Your task to perform on an android device: turn off location Image 0: 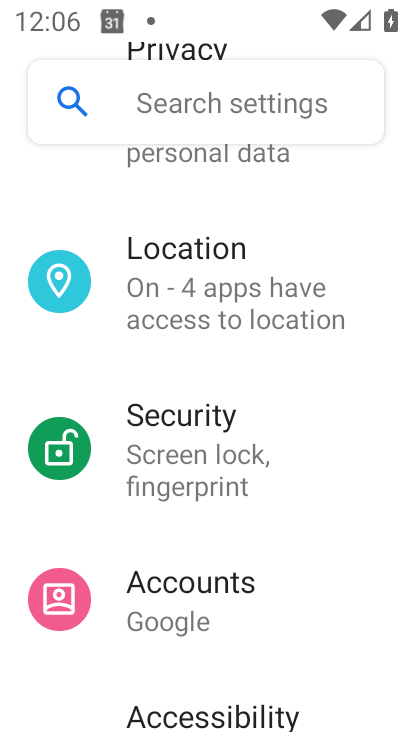
Step 0: click (186, 327)
Your task to perform on an android device: turn off location Image 1: 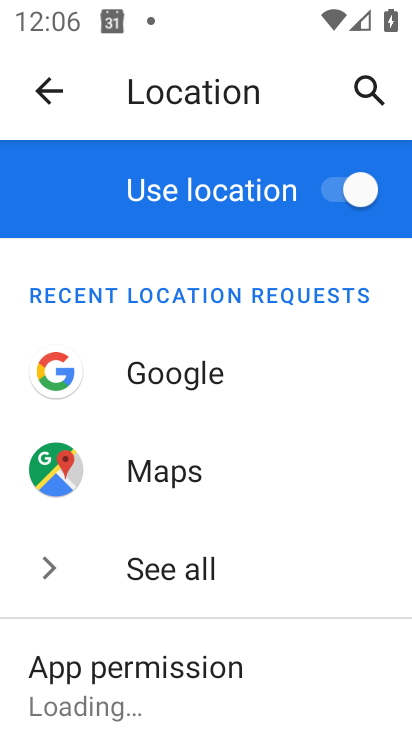
Step 1: click (336, 195)
Your task to perform on an android device: turn off location Image 2: 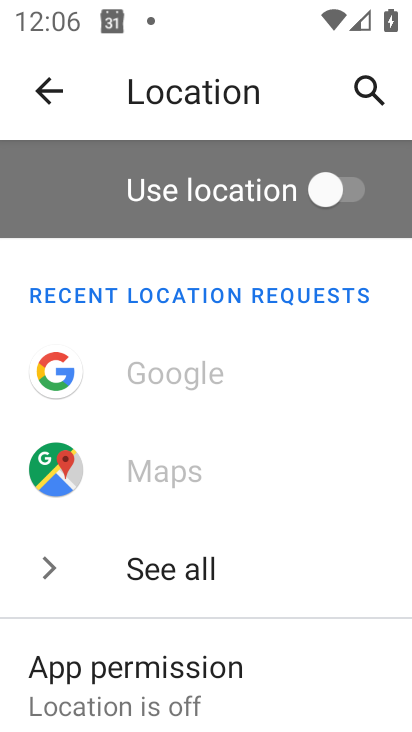
Step 2: task complete